Your task to perform on an android device: Open accessibility settings Image 0: 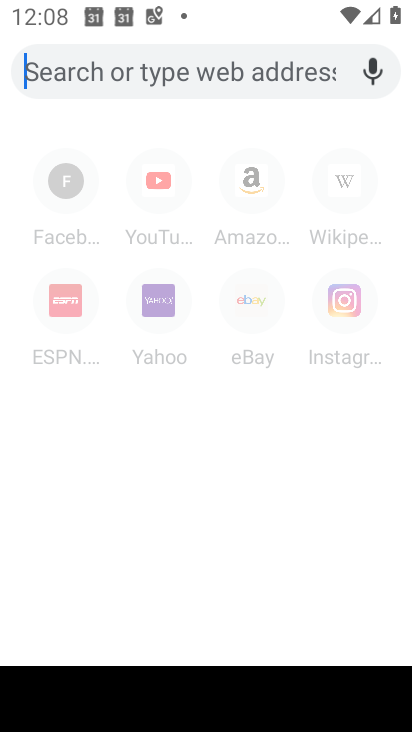
Step 0: press home button
Your task to perform on an android device: Open accessibility settings Image 1: 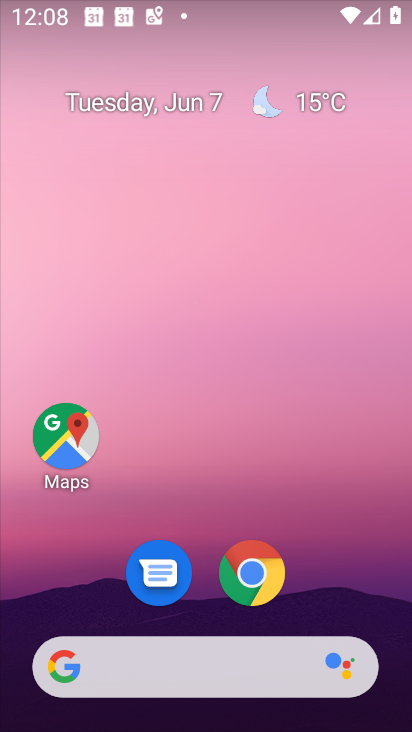
Step 1: drag from (201, 399) to (183, 210)
Your task to perform on an android device: Open accessibility settings Image 2: 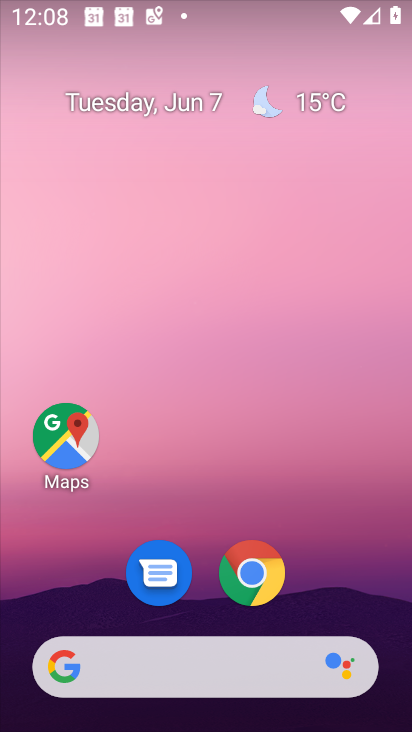
Step 2: drag from (208, 618) to (217, 158)
Your task to perform on an android device: Open accessibility settings Image 3: 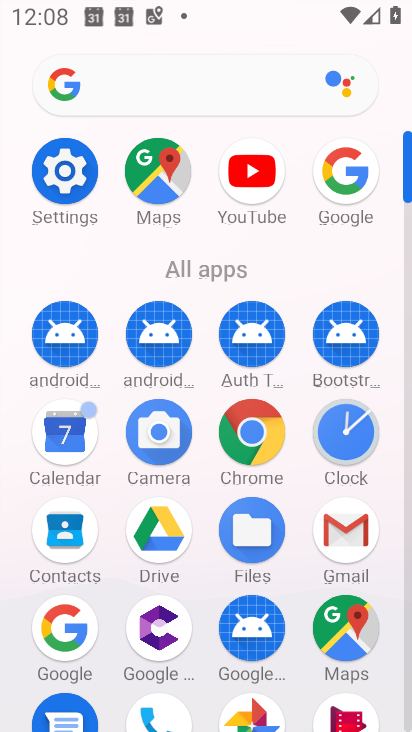
Step 3: click (69, 179)
Your task to perform on an android device: Open accessibility settings Image 4: 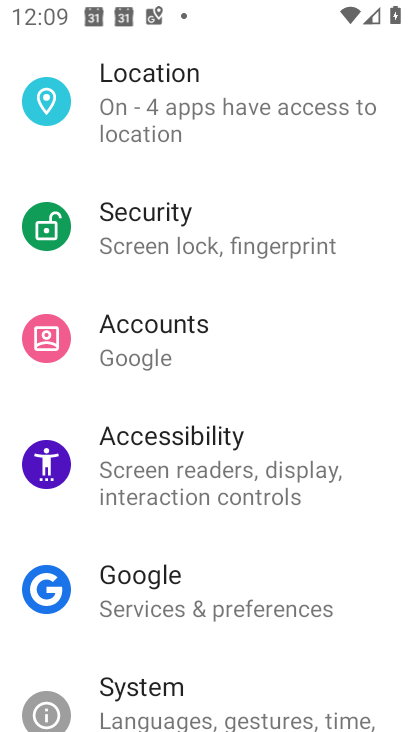
Step 4: click (154, 448)
Your task to perform on an android device: Open accessibility settings Image 5: 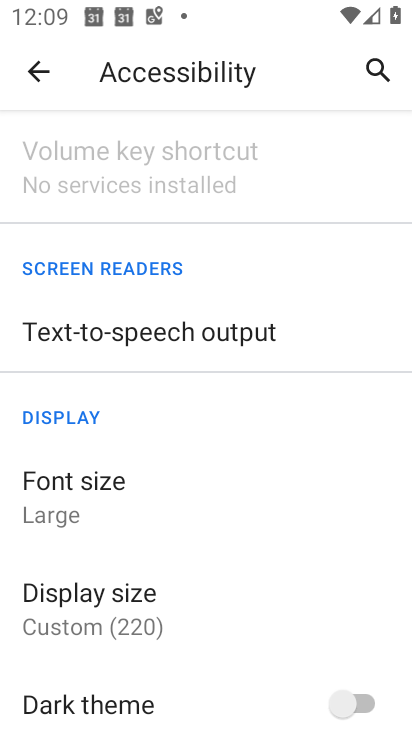
Step 5: task complete